Your task to perform on an android device: turn off priority inbox in the gmail app Image 0: 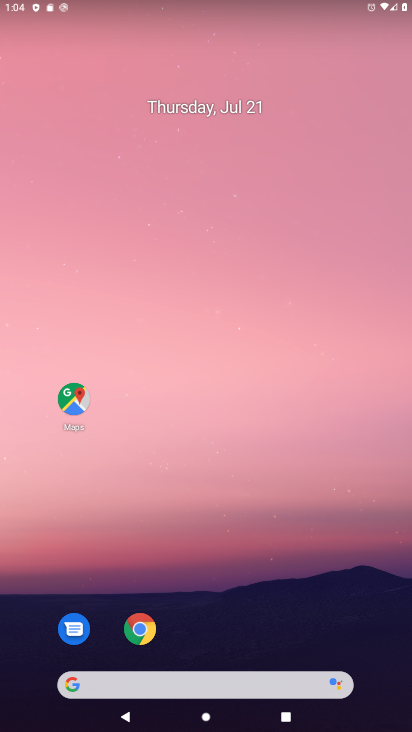
Step 0: drag from (29, 695) to (371, 46)
Your task to perform on an android device: turn off priority inbox in the gmail app Image 1: 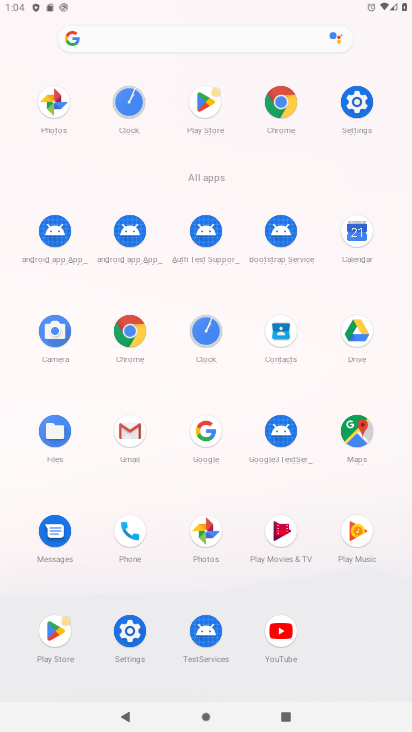
Step 1: click (113, 439)
Your task to perform on an android device: turn off priority inbox in the gmail app Image 2: 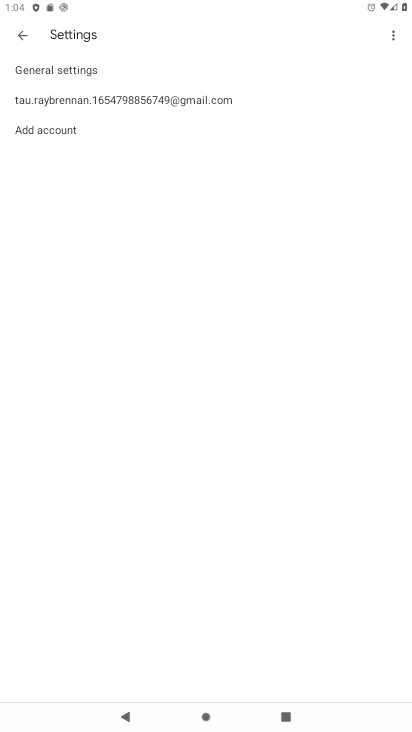
Step 2: click (38, 101)
Your task to perform on an android device: turn off priority inbox in the gmail app Image 3: 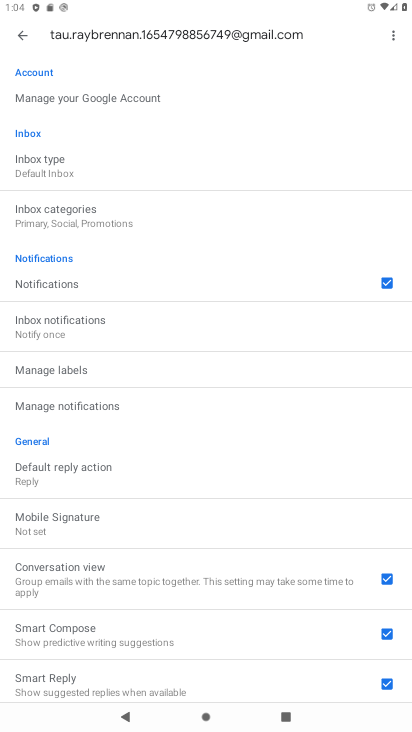
Step 3: click (27, 171)
Your task to perform on an android device: turn off priority inbox in the gmail app Image 4: 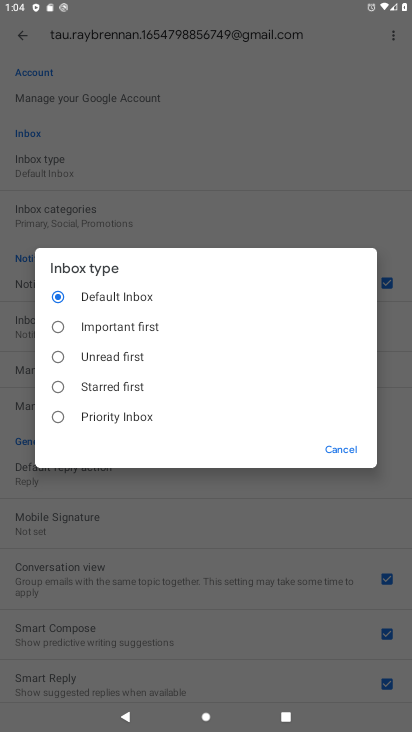
Step 4: click (61, 413)
Your task to perform on an android device: turn off priority inbox in the gmail app Image 5: 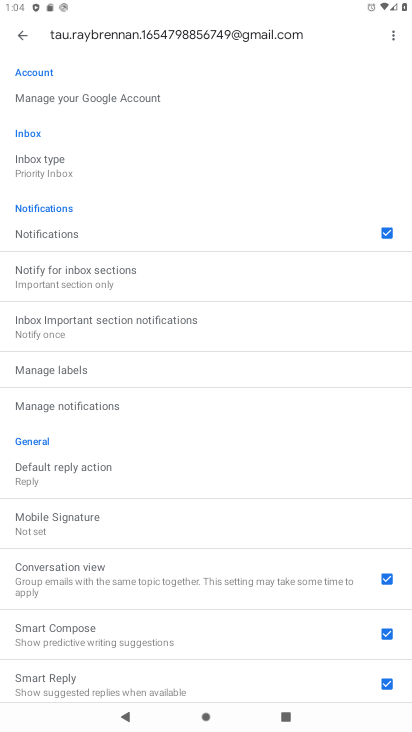
Step 5: task complete